Your task to perform on an android device: Go to Google maps Image 0: 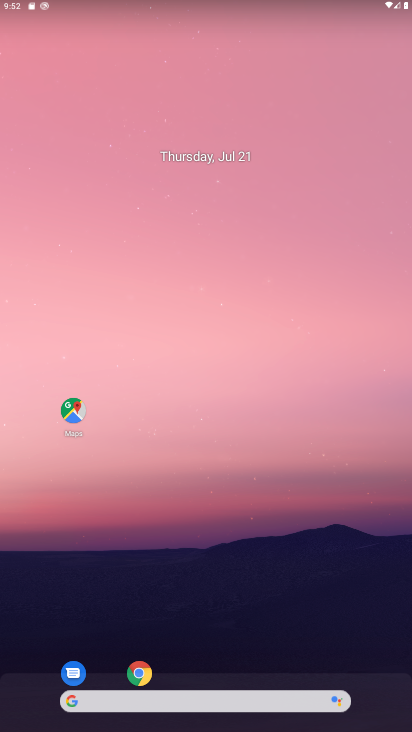
Step 0: click (72, 411)
Your task to perform on an android device: Go to Google maps Image 1: 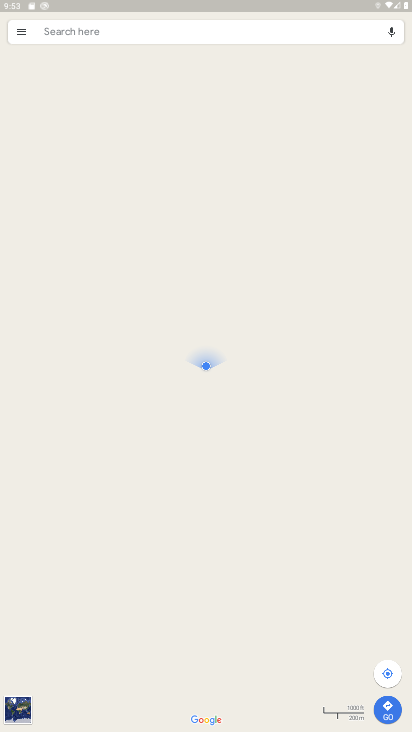
Step 1: task complete